Your task to perform on an android device: turn on the 24-hour format for clock Image 0: 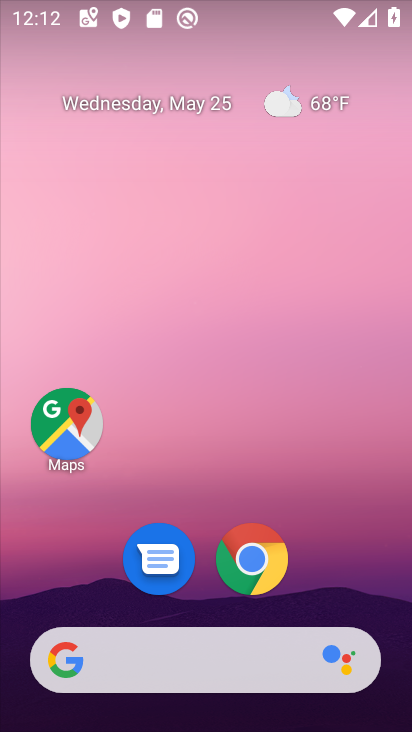
Step 0: drag from (390, 625) to (329, 67)
Your task to perform on an android device: turn on the 24-hour format for clock Image 1: 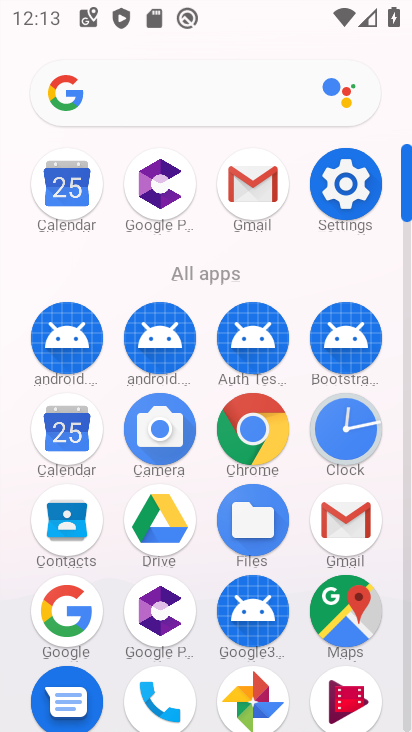
Step 1: click (346, 433)
Your task to perform on an android device: turn on the 24-hour format for clock Image 2: 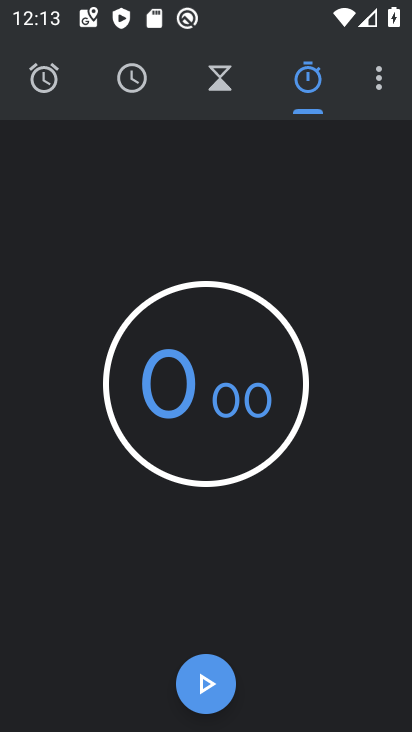
Step 2: click (379, 85)
Your task to perform on an android device: turn on the 24-hour format for clock Image 3: 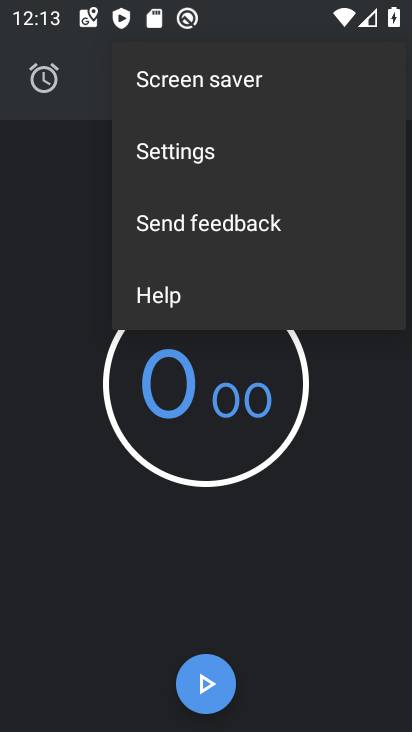
Step 3: click (181, 139)
Your task to perform on an android device: turn on the 24-hour format for clock Image 4: 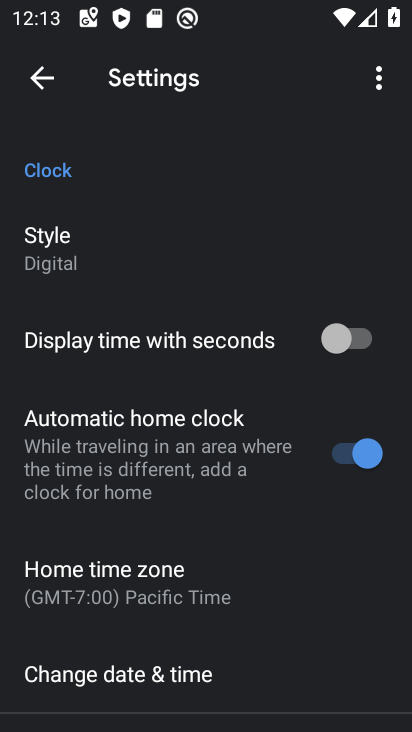
Step 4: drag from (258, 644) to (275, 316)
Your task to perform on an android device: turn on the 24-hour format for clock Image 5: 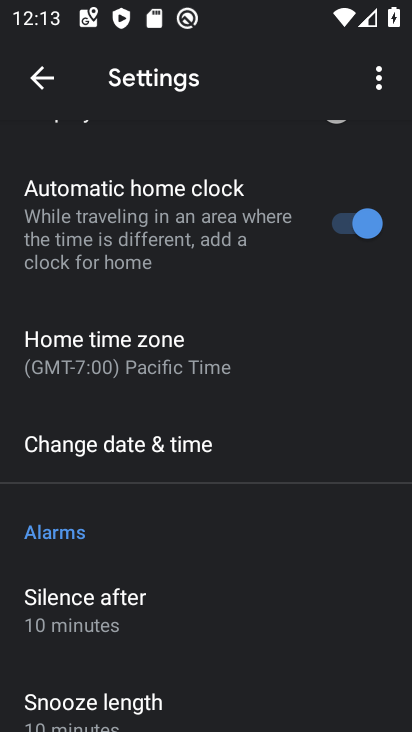
Step 5: click (125, 454)
Your task to perform on an android device: turn on the 24-hour format for clock Image 6: 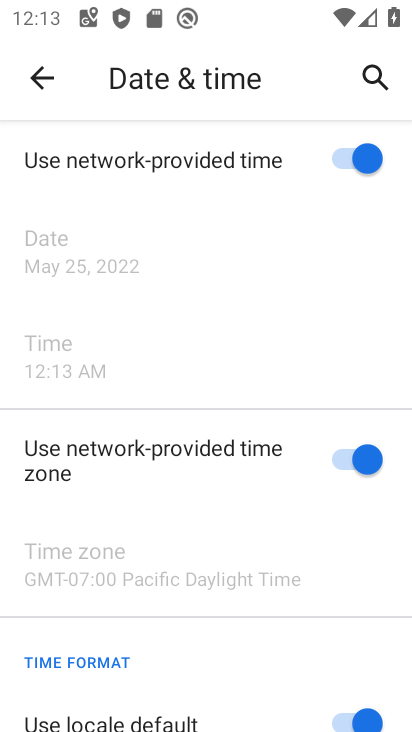
Step 6: drag from (247, 612) to (227, 206)
Your task to perform on an android device: turn on the 24-hour format for clock Image 7: 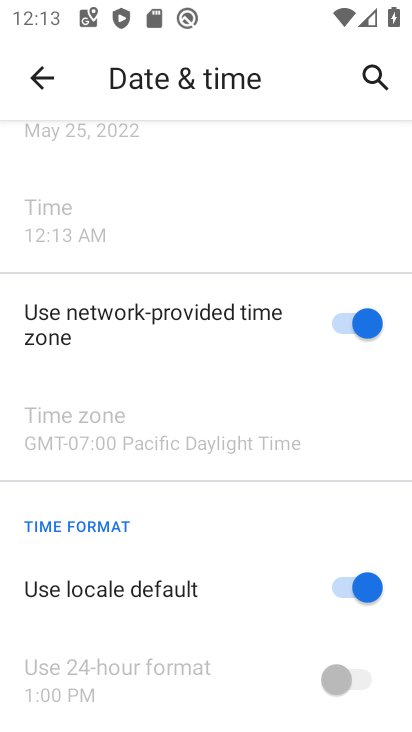
Step 7: click (332, 585)
Your task to perform on an android device: turn on the 24-hour format for clock Image 8: 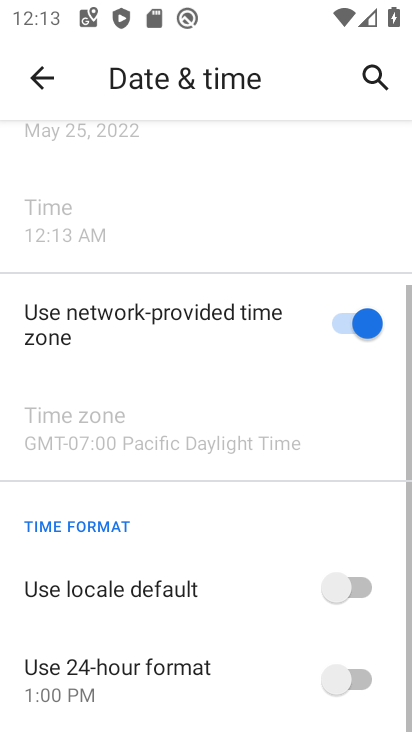
Step 8: click (366, 678)
Your task to perform on an android device: turn on the 24-hour format for clock Image 9: 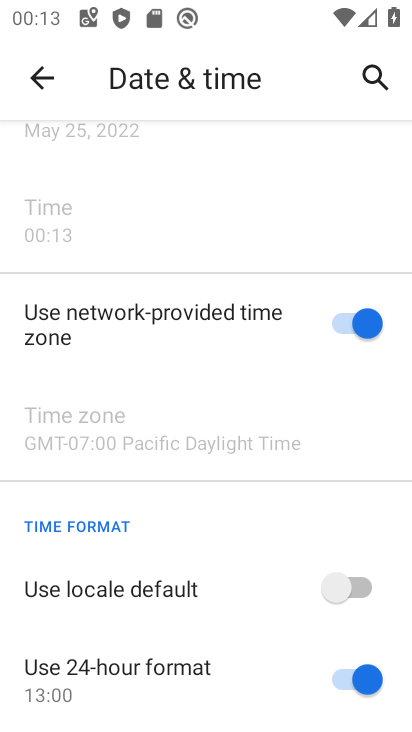
Step 9: task complete